Your task to perform on an android device: When is my next meeting? Image 0: 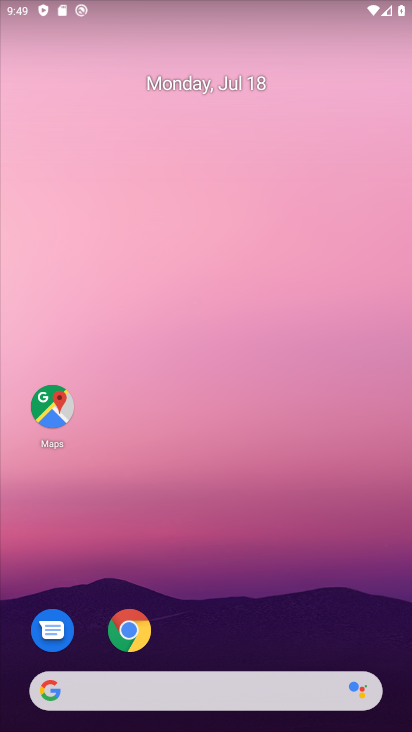
Step 0: drag from (168, 634) to (322, 73)
Your task to perform on an android device: When is my next meeting? Image 1: 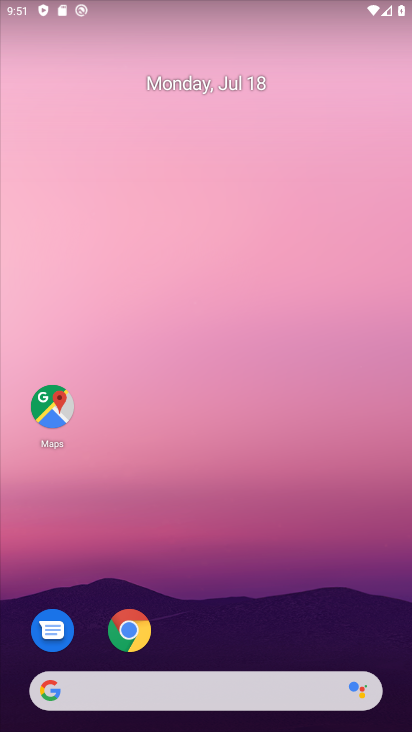
Step 1: drag from (269, 703) to (280, 53)
Your task to perform on an android device: When is my next meeting? Image 2: 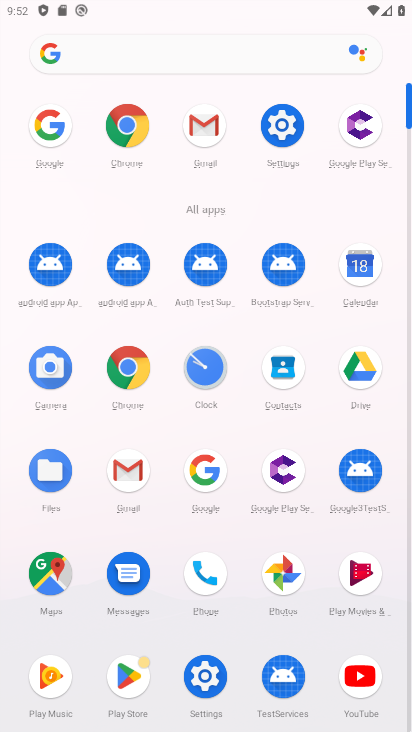
Step 2: click (347, 274)
Your task to perform on an android device: When is my next meeting? Image 3: 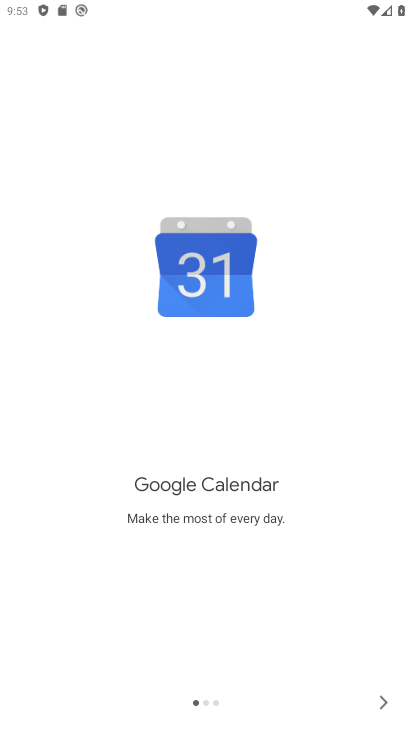
Step 3: click (375, 706)
Your task to perform on an android device: When is my next meeting? Image 4: 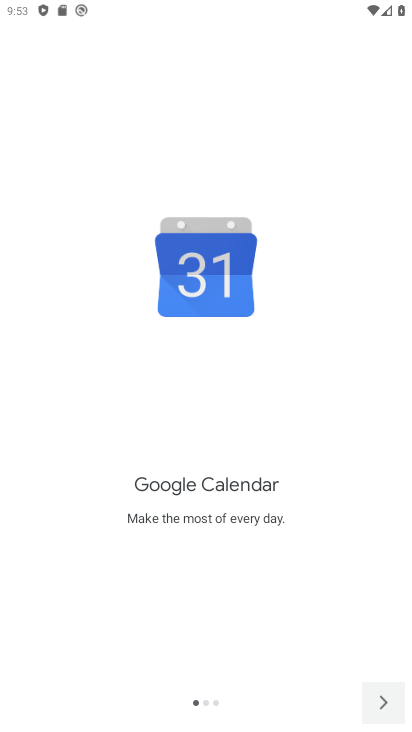
Step 4: click (375, 706)
Your task to perform on an android device: When is my next meeting? Image 5: 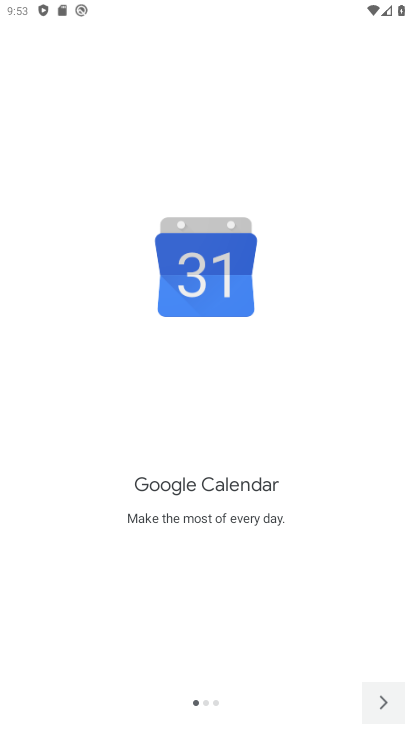
Step 5: click (375, 706)
Your task to perform on an android device: When is my next meeting? Image 6: 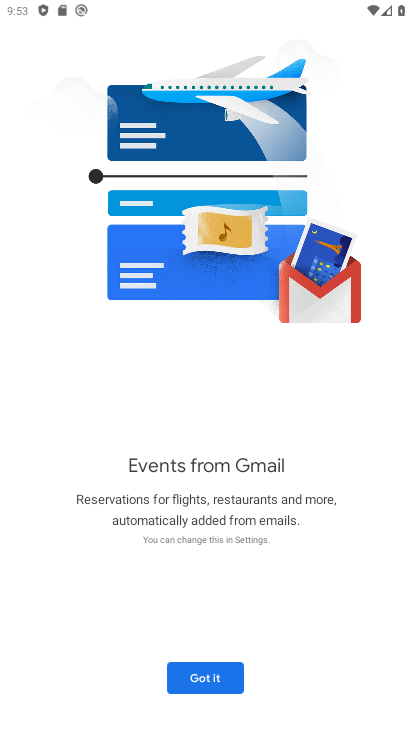
Step 6: click (375, 706)
Your task to perform on an android device: When is my next meeting? Image 7: 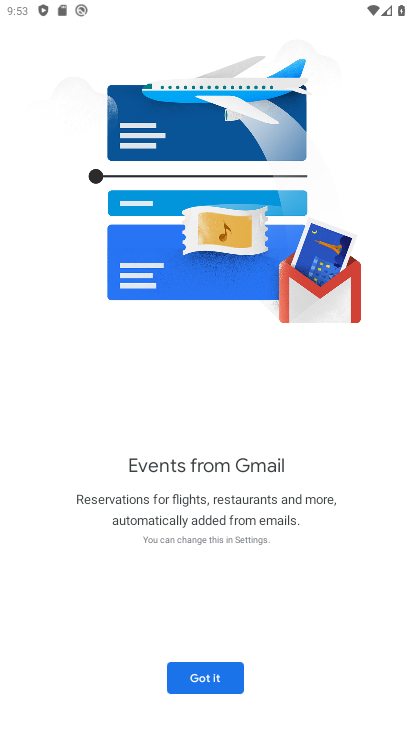
Step 7: click (375, 706)
Your task to perform on an android device: When is my next meeting? Image 8: 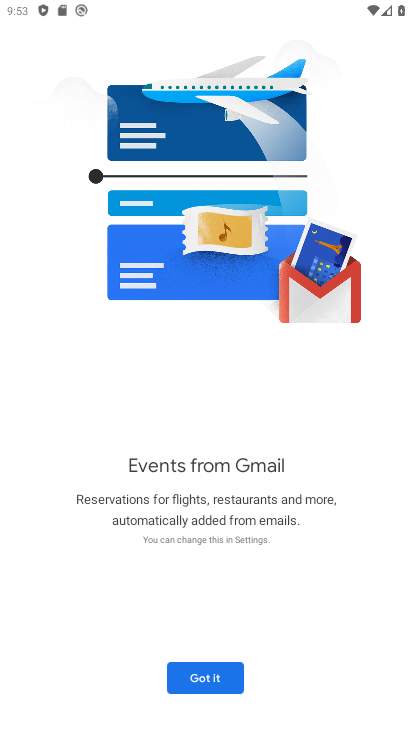
Step 8: click (216, 673)
Your task to perform on an android device: When is my next meeting? Image 9: 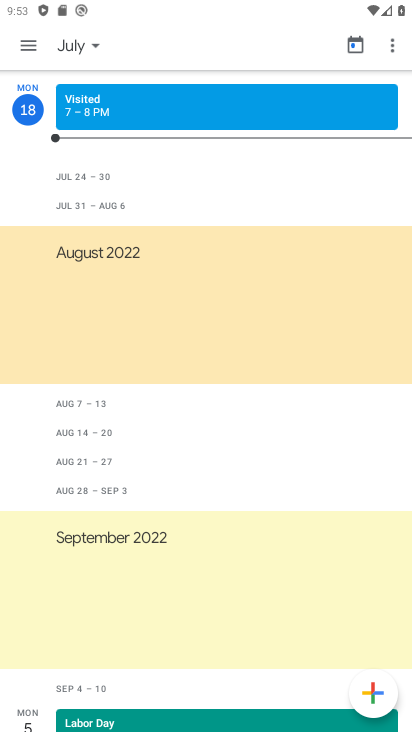
Step 9: click (91, 41)
Your task to perform on an android device: When is my next meeting? Image 10: 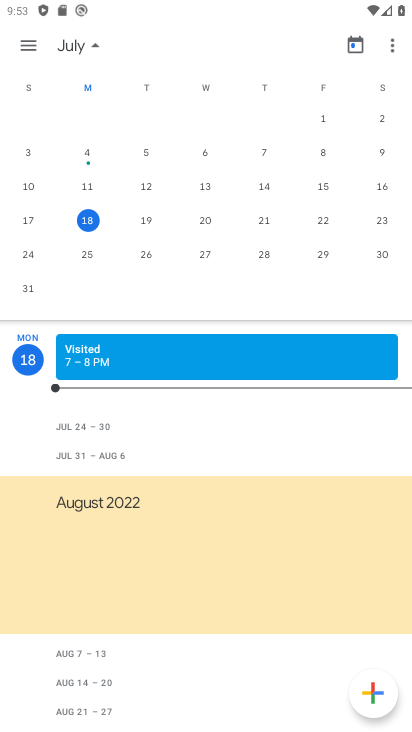
Step 10: click (83, 38)
Your task to perform on an android device: When is my next meeting? Image 11: 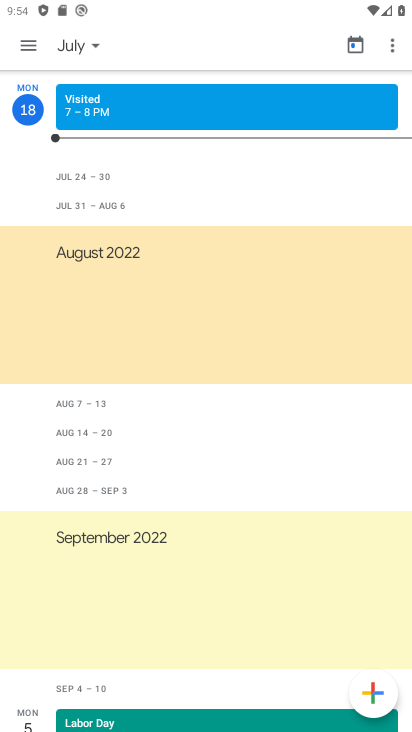
Step 11: task complete